Your task to perform on an android device: Search for Italian restaurants on Maps Image 0: 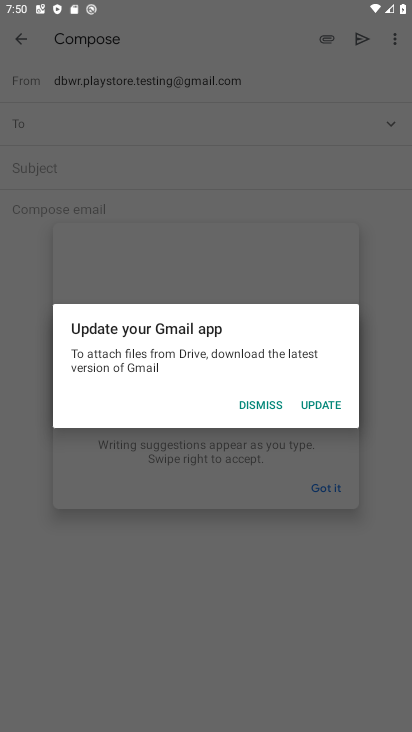
Step 0: press home button
Your task to perform on an android device: Search for Italian restaurants on Maps Image 1: 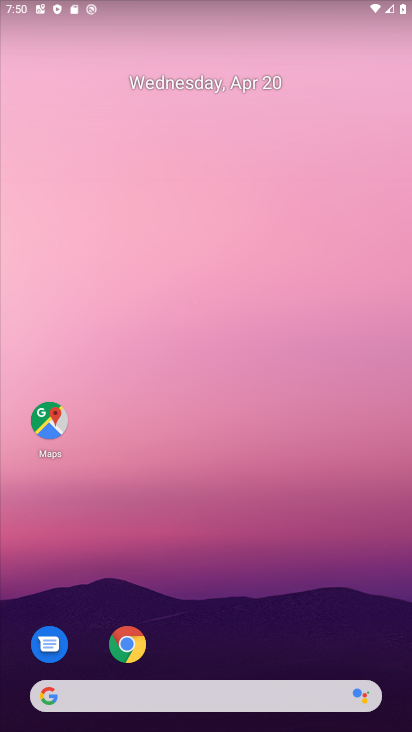
Step 1: drag from (318, 612) to (236, 107)
Your task to perform on an android device: Search for Italian restaurants on Maps Image 2: 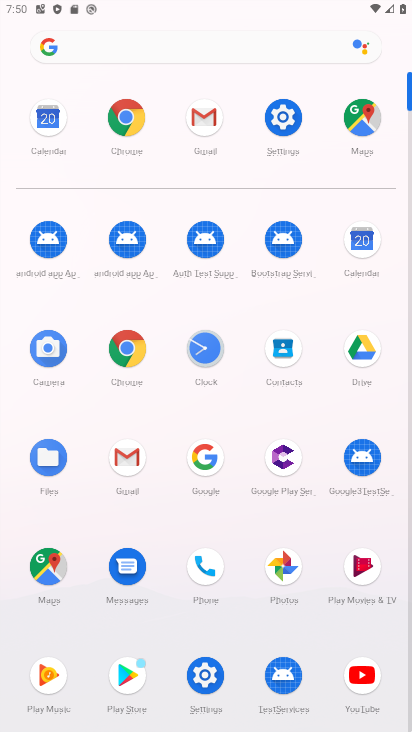
Step 2: click (42, 565)
Your task to perform on an android device: Search for Italian restaurants on Maps Image 3: 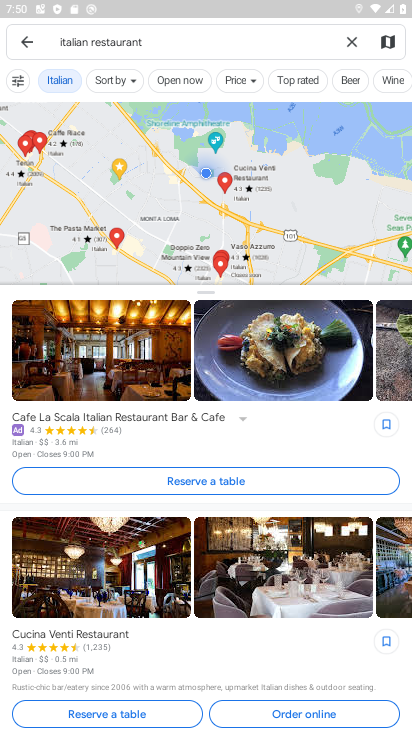
Step 3: task complete